Your task to perform on an android device: turn off notifications in google photos Image 0: 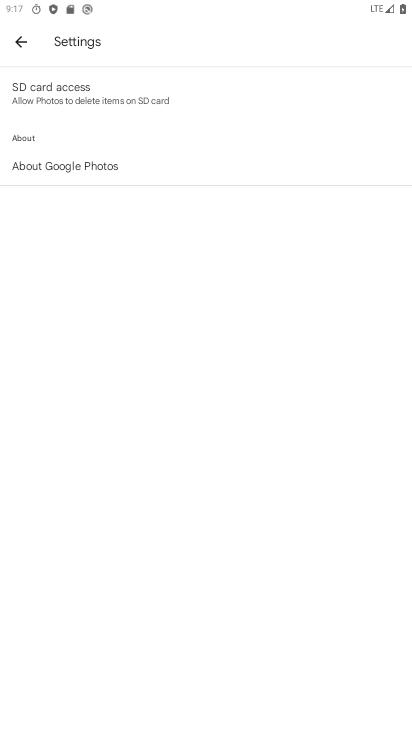
Step 0: click (374, 386)
Your task to perform on an android device: turn off notifications in google photos Image 1: 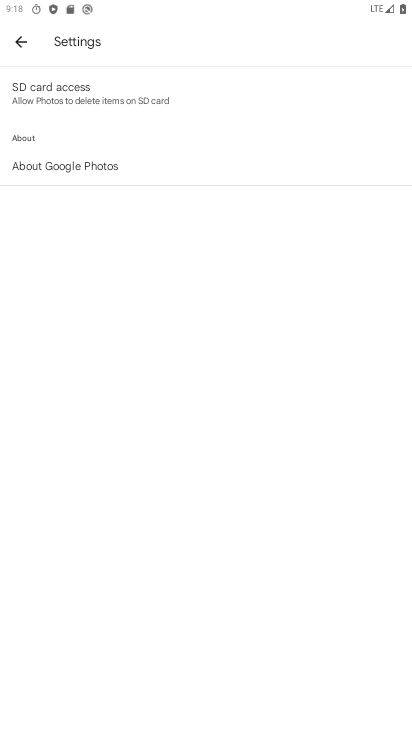
Step 1: drag from (117, 417) to (138, 330)
Your task to perform on an android device: turn off notifications in google photos Image 2: 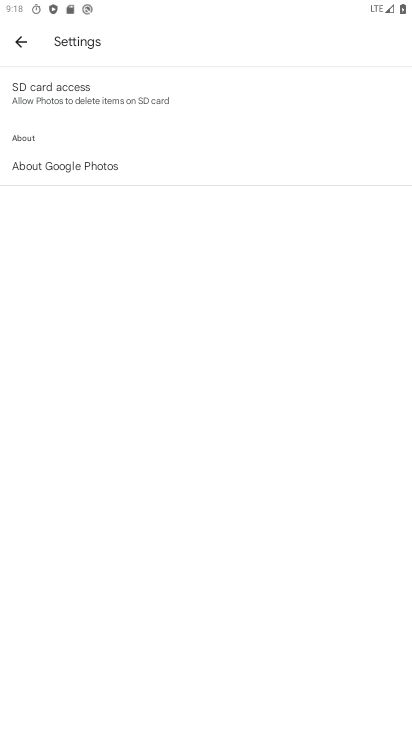
Step 2: drag from (63, 479) to (282, 127)
Your task to perform on an android device: turn off notifications in google photos Image 3: 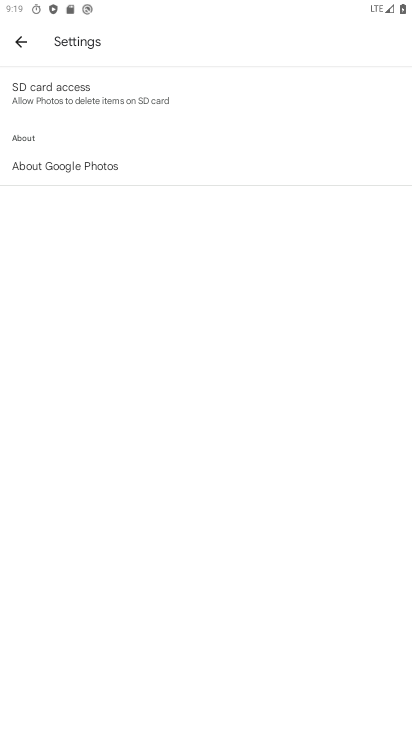
Step 3: drag from (277, 402) to (285, 347)
Your task to perform on an android device: turn off notifications in google photos Image 4: 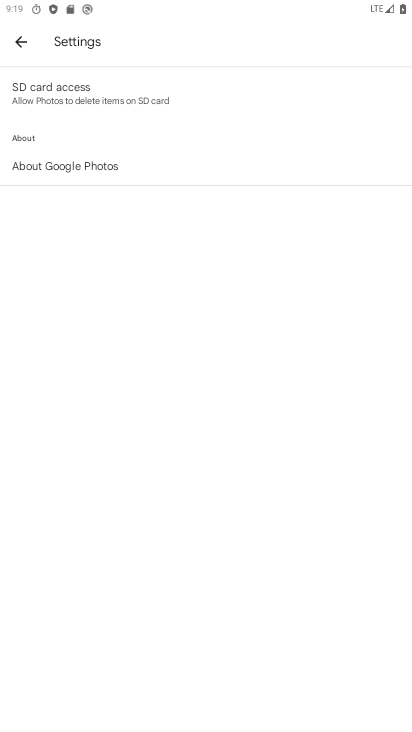
Step 4: press home button
Your task to perform on an android device: turn off notifications in google photos Image 5: 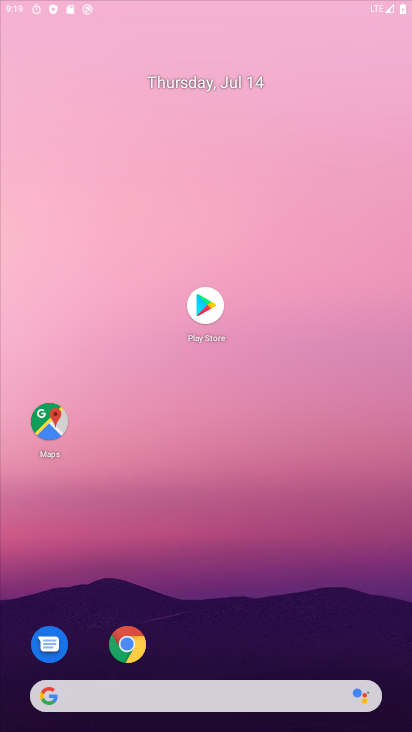
Step 5: drag from (165, 625) to (219, 220)
Your task to perform on an android device: turn off notifications in google photos Image 6: 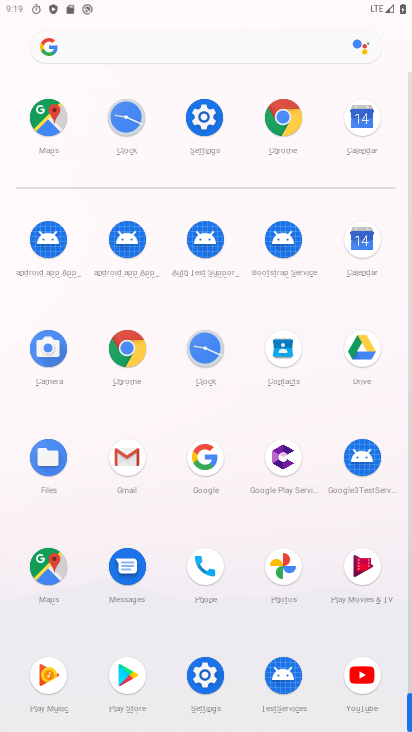
Step 6: click (283, 570)
Your task to perform on an android device: turn off notifications in google photos Image 7: 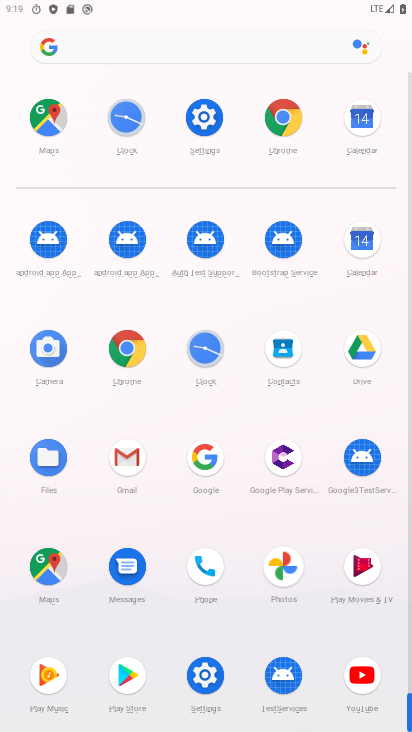
Step 7: click (283, 570)
Your task to perform on an android device: turn off notifications in google photos Image 8: 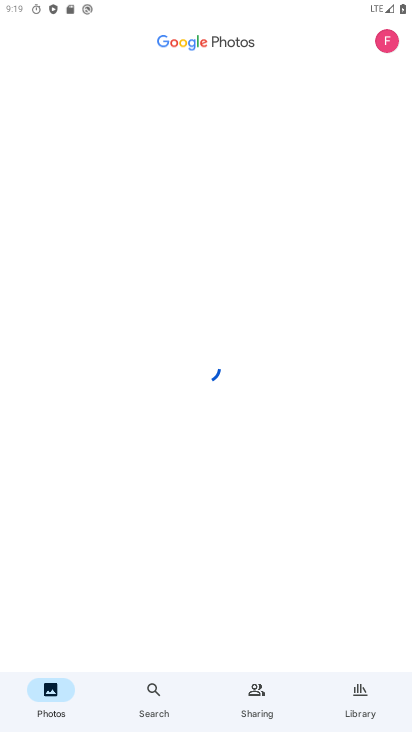
Step 8: drag from (267, 560) to (267, 344)
Your task to perform on an android device: turn off notifications in google photos Image 9: 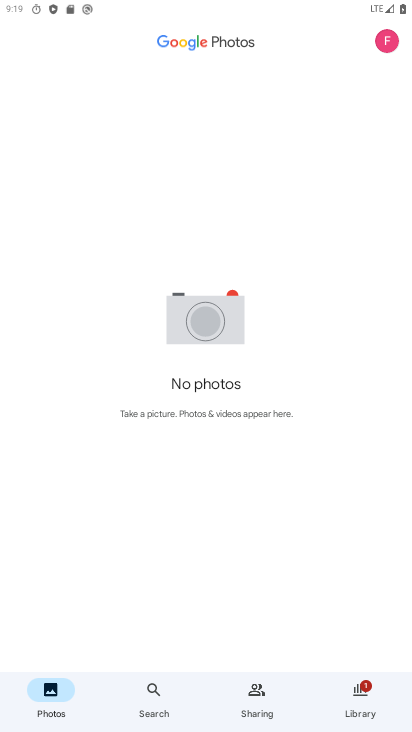
Step 9: click (386, 47)
Your task to perform on an android device: turn off notifications in google photos Image 10: 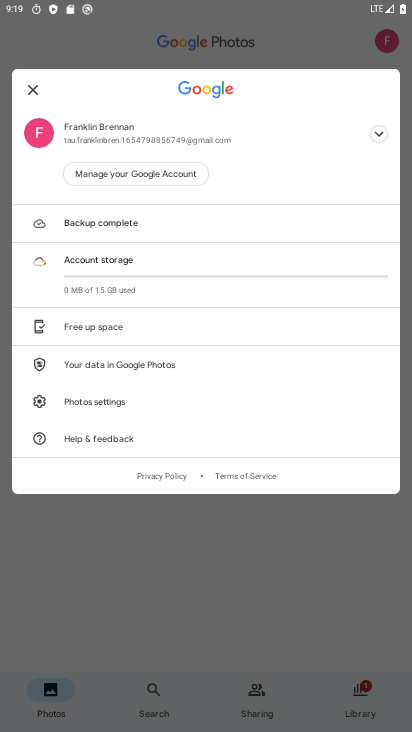
Step 10: click (67, 400)
Your task to perform on an android device: turn off notifications in google photos Image 11: 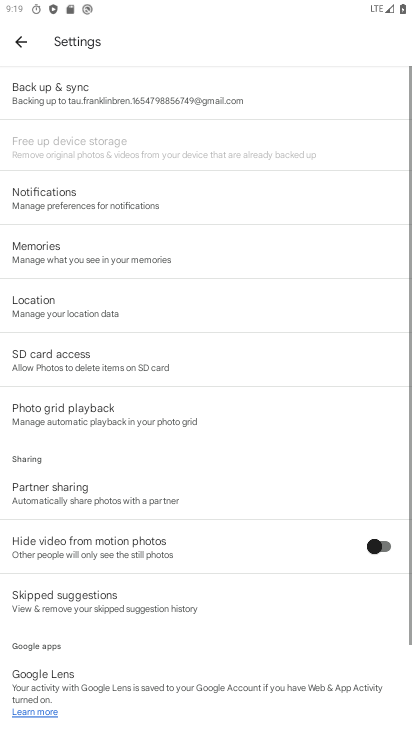
Step 11: drag from (212, 547) to (218, 352)
Your task to perform on an android device: turn off notifications in google photos Image 12: 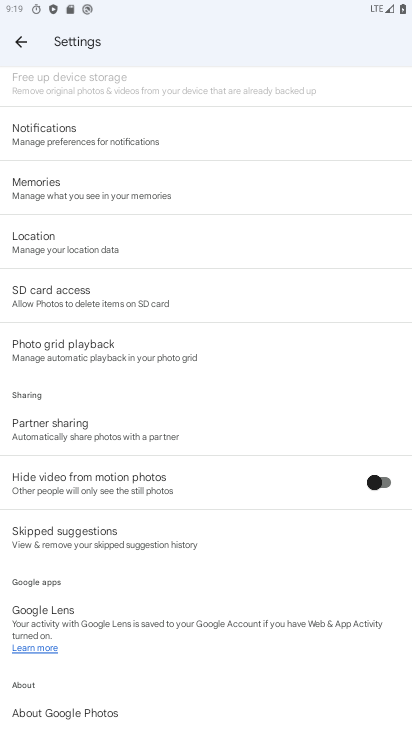
Step 12: drag from (205, 212) to (198, 611)
Your task to perform on an android device: turn off notifications in google photos Image 13: 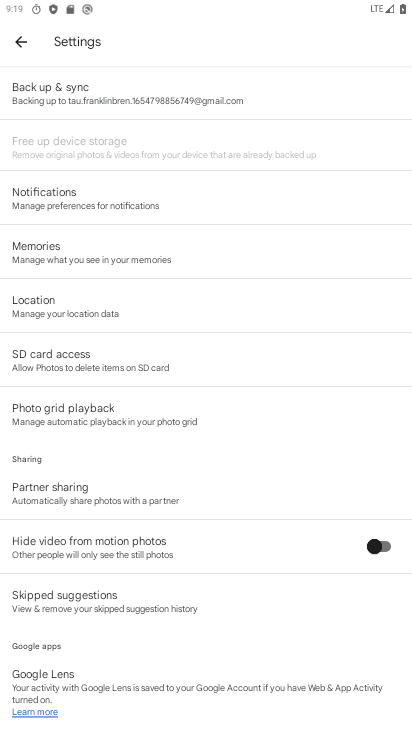
Step 13: click (113, 200)
Your task to perform on an android device: turn off notifications in google photos Image 14: 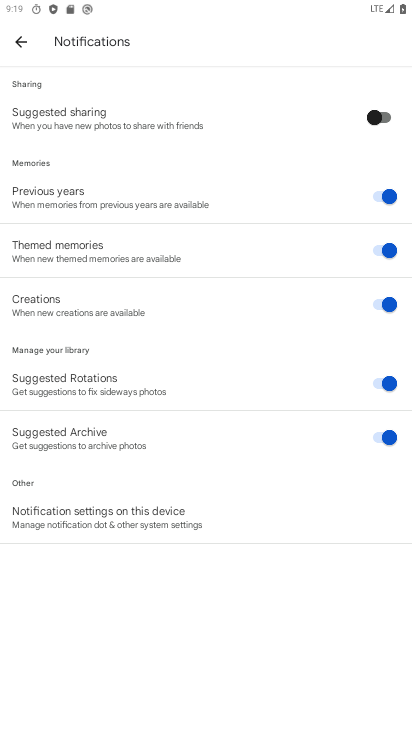
Step 14: click (126, 515)
Your task to perform on an android device: turn off notifications in google photos Image 15: 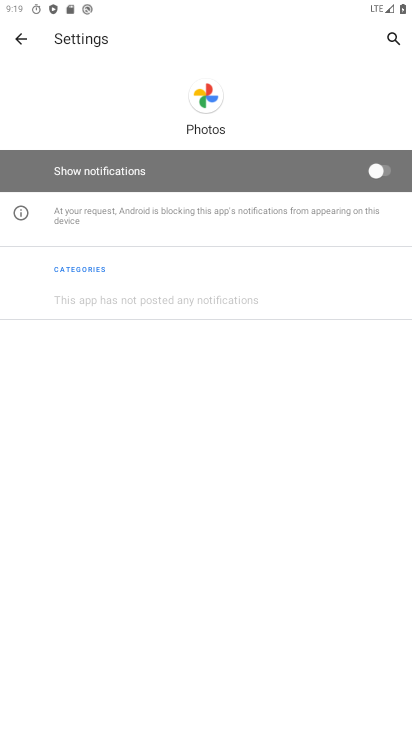
Step 15: task complete